Your task to perform on an android device: open app "Microsoft Authenticator" Image 0: 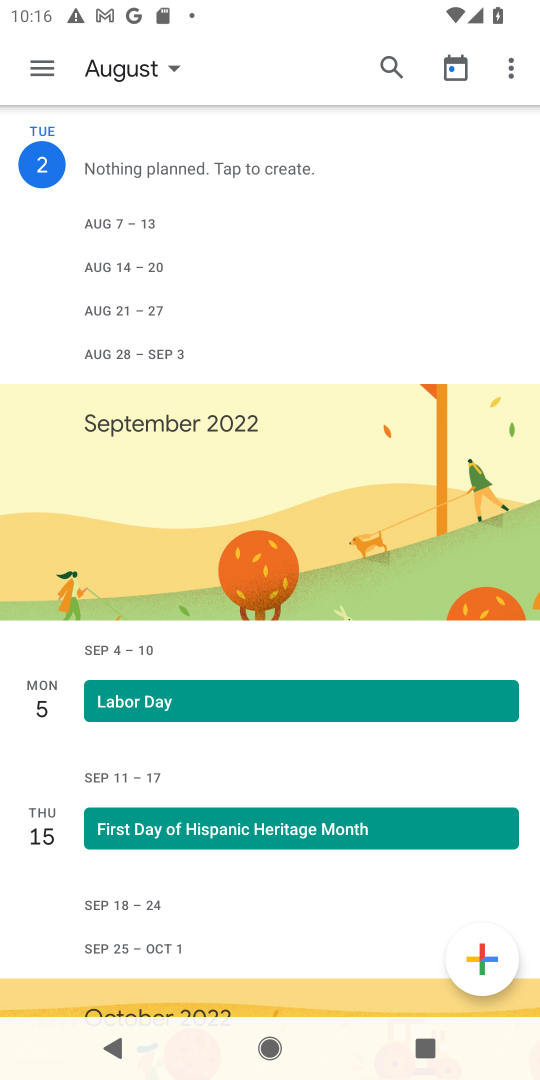
Step 0: press home button
Your task to perform on an android device: open app "Microsoft Authenticator" Image 1: 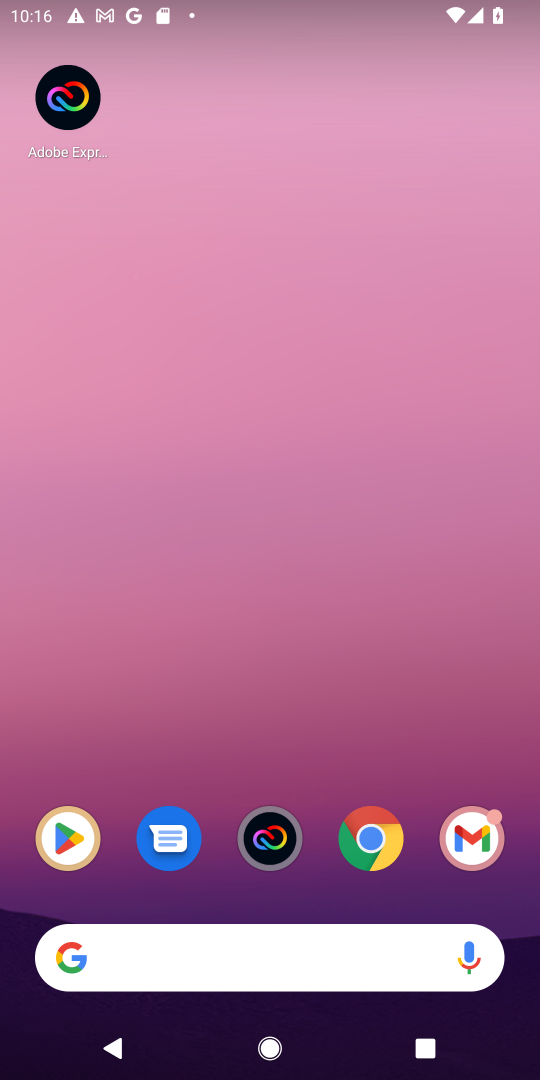
Step 1: drag from (216, 738) to (252, 104)
Your task to perform on an android device: open app "Microsoft Authenticator" Image 2: 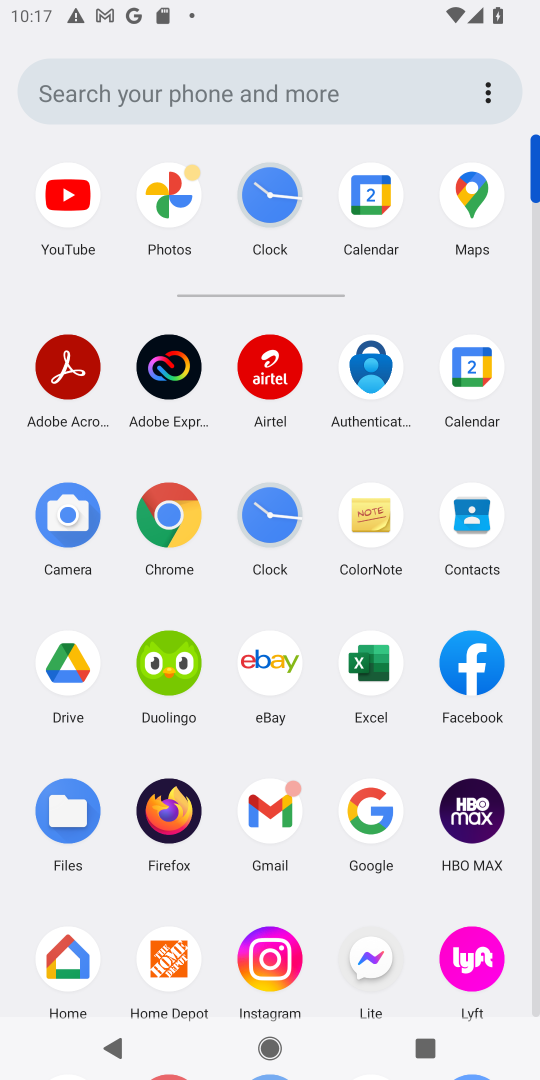
Step 2: drag from (319, 898) to (322, 452)
Your task to perform on an android device: open app "Microsoft Authenticator" Image 3: 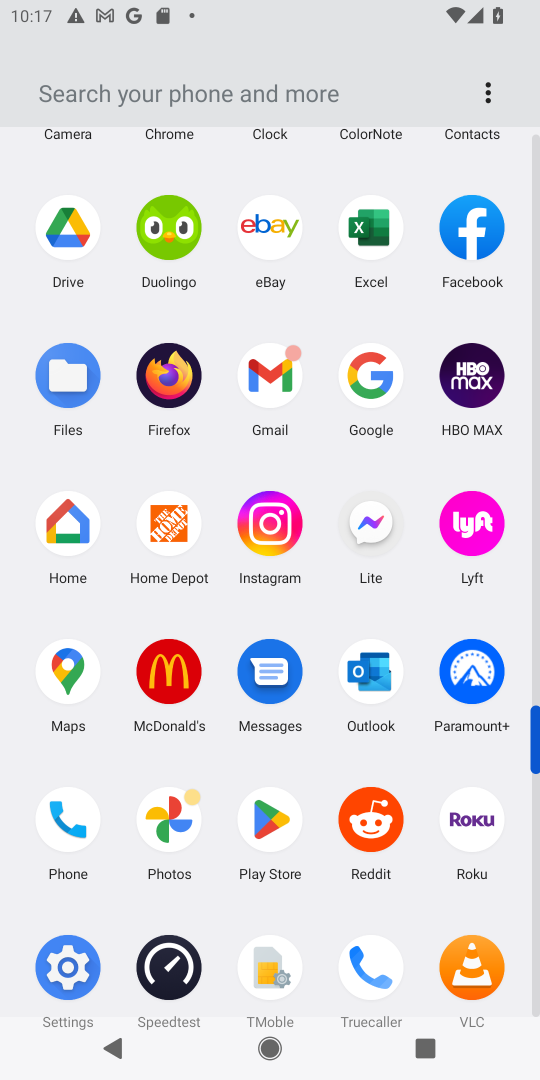
Step 3: click (273, 833)
Your task to perform on an android device: open app "Microsoft Authenticator" Image 4: 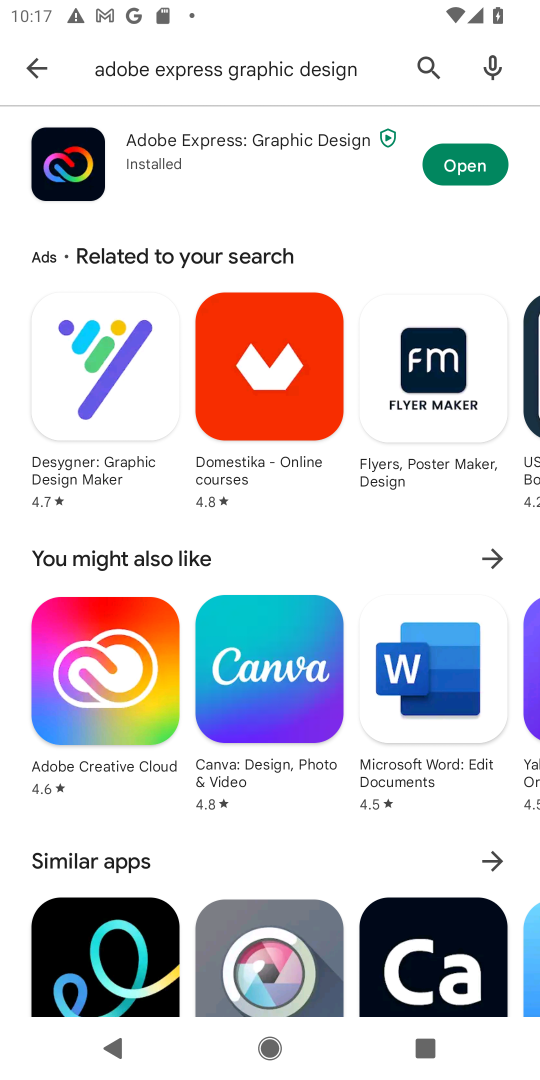
Step 4: click (421, 65)
Your task to perform on an android device: open app "Microsoft Authenticator" Image 5: 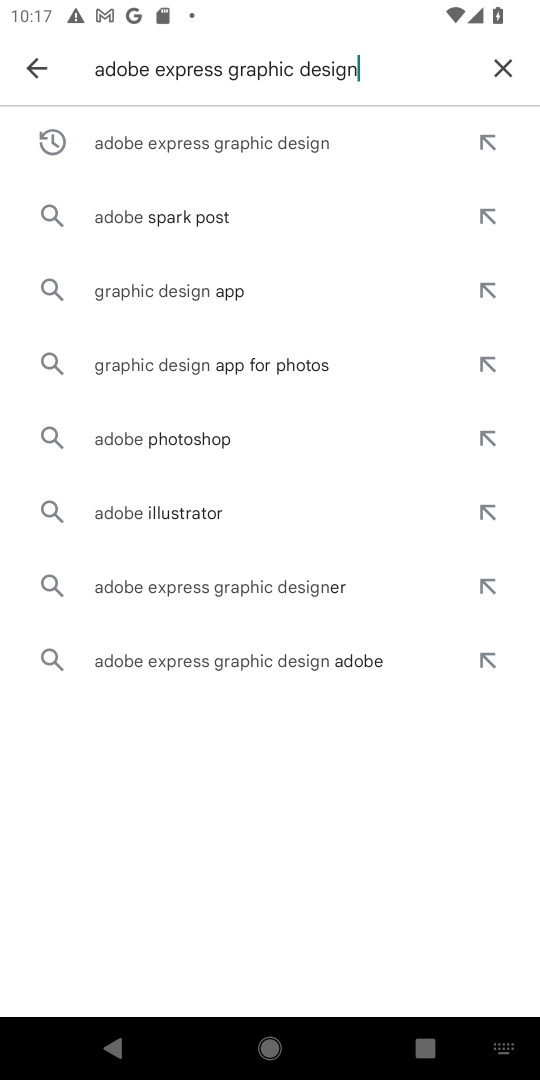
Step 5: click (505, 70)
Your task to perform on an android device: open app "Microsoft Authenticator" Image 6: 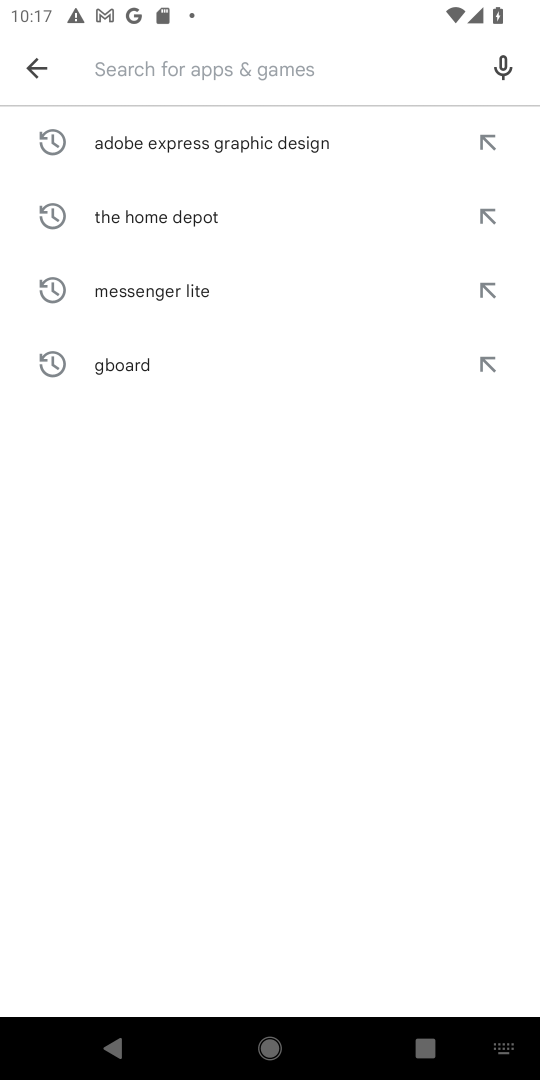
Step 6: click (402, 73)
Your task to perform on an android device: open app "Microsoft Authenticator" Image 7: 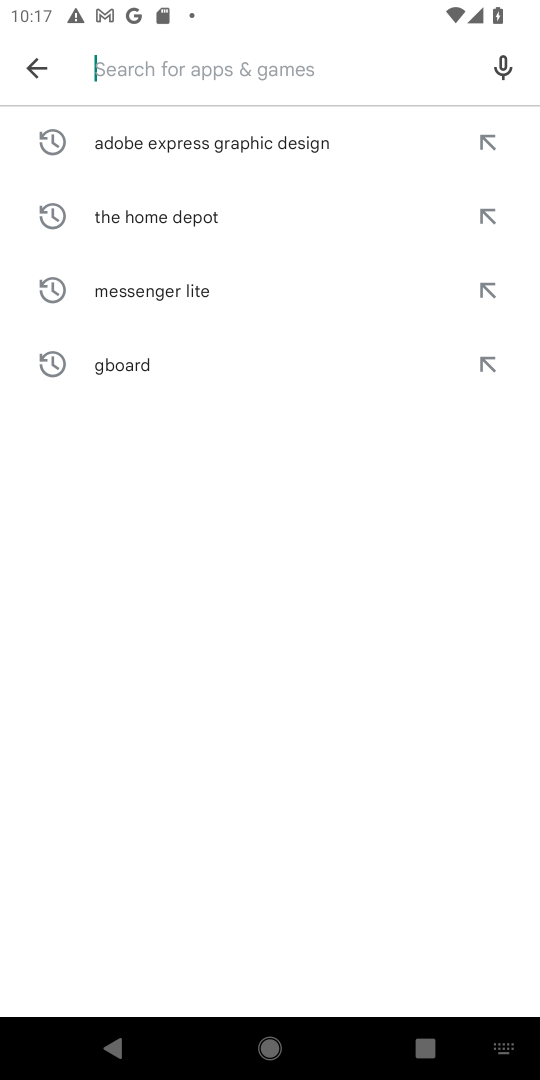
Step 7: type "microsoft authenticator"
Your task to perform on an android device: open app "Microsoft Authenticator" Image 8: 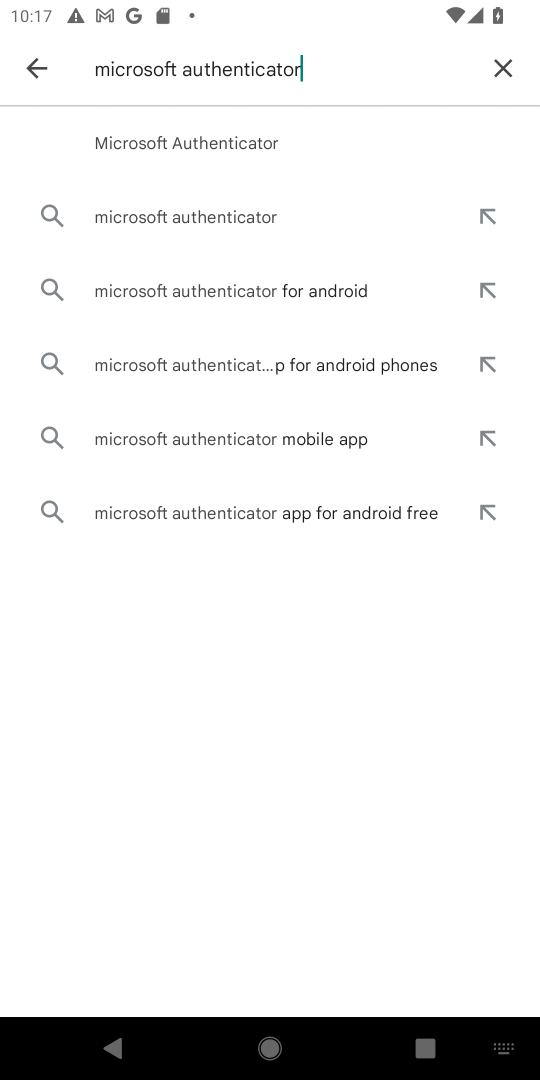
Step 8: click (271, 157)
Your task to perform on an android device: open app "Microsoft Authenticator" Image 9: 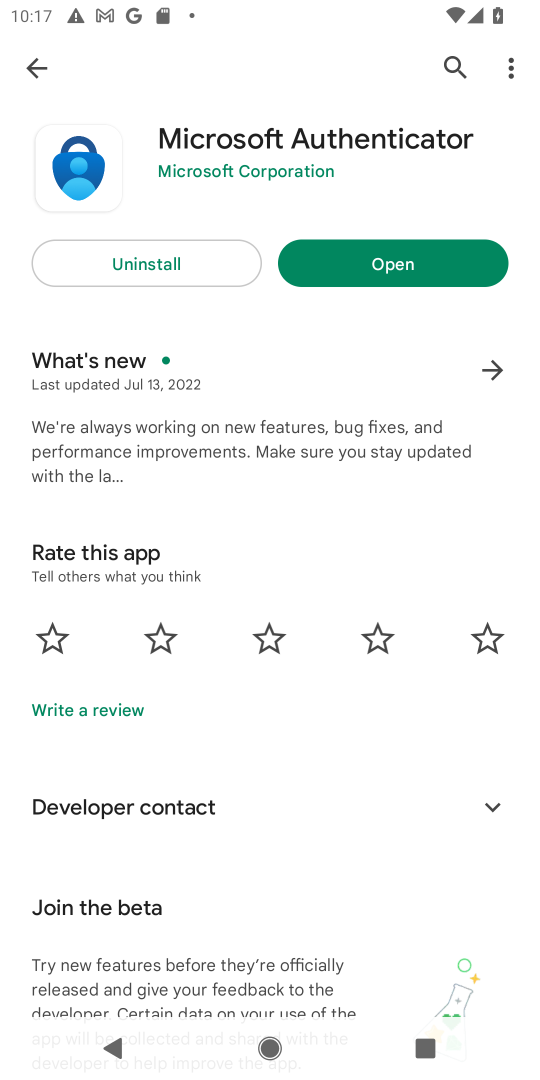
Step 9: click (439, 268)
Your task to perform on an android device: open app "Microsoft Authenticator" Image 10: 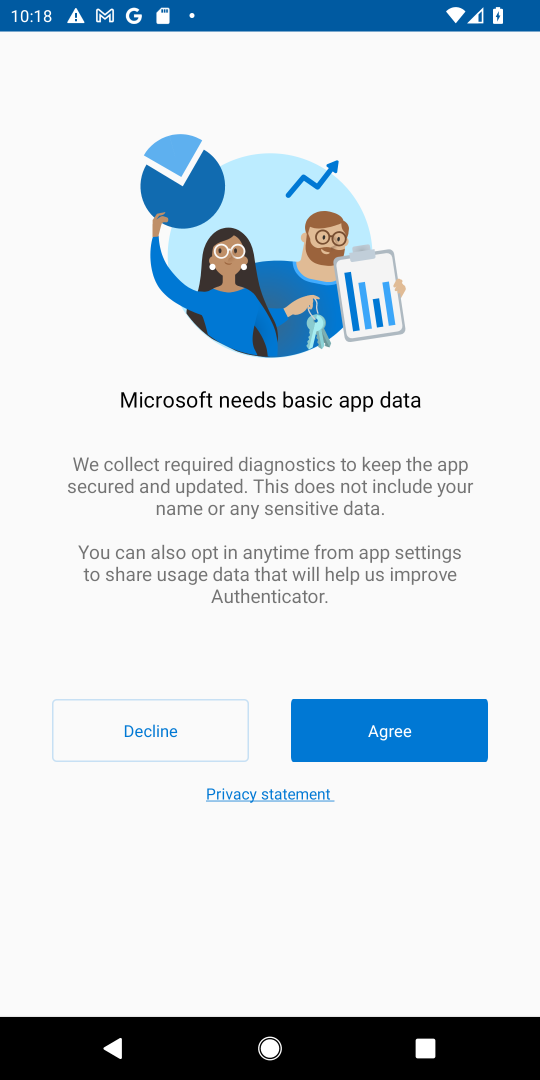
Step 10: task complete